Your task to perform on an android device: When is my next appointment? Image 0: 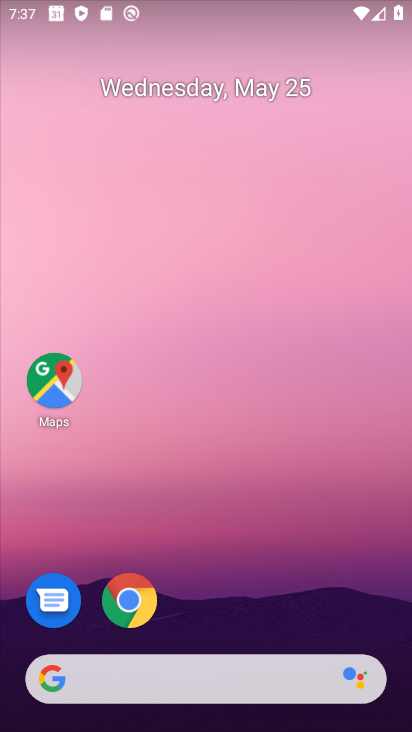
Step 0: drag from (307, 599) to (319, 133)
Your task to perform on an android device: When is my next appointment? Image 1: 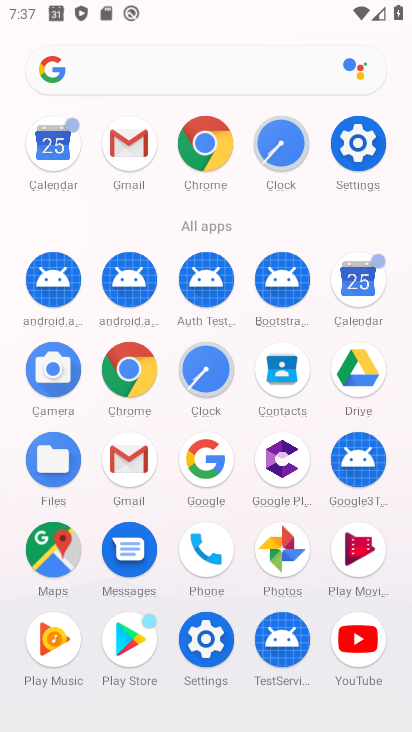
Step 1: click (361, 284)
Your task to perform on an android device: When is my next appointment? Image 2: 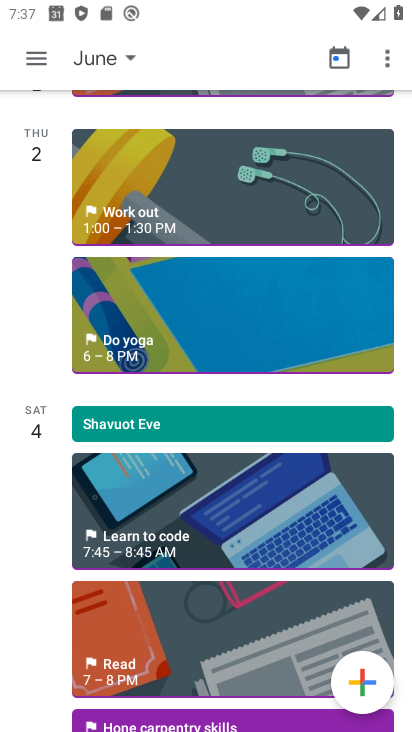
Step 2: drag from (161, 633) to (182, 275)
Your task to perform on an android device: When is my next appointment? Image 3: 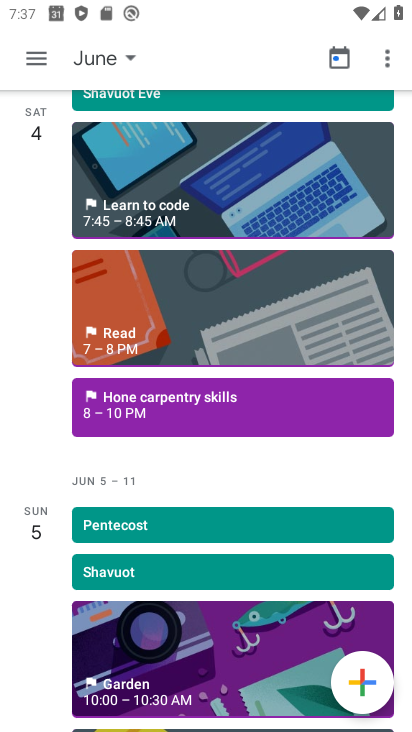
Step 3: drag from (213, 613) to (205, 245)
Your task to perform on an android device: When is my next appointment? Image 4: 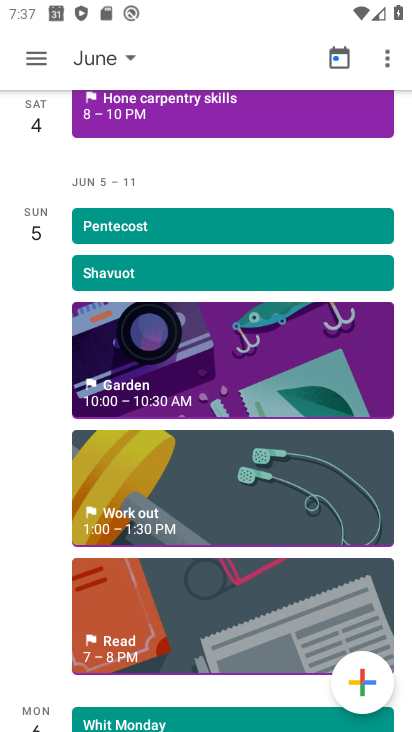
Step 4: drag from (210, 534) to (281, 196)
Your task to perform on an android device: When is my next appointment? Image 5: 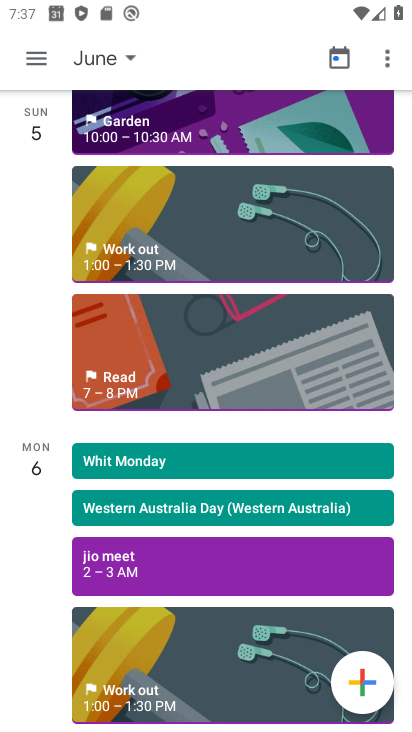
Step 5: drag from (222, 655) to (262, 289)
Your task to perform on an android device: When is my next appointment? Image 6: 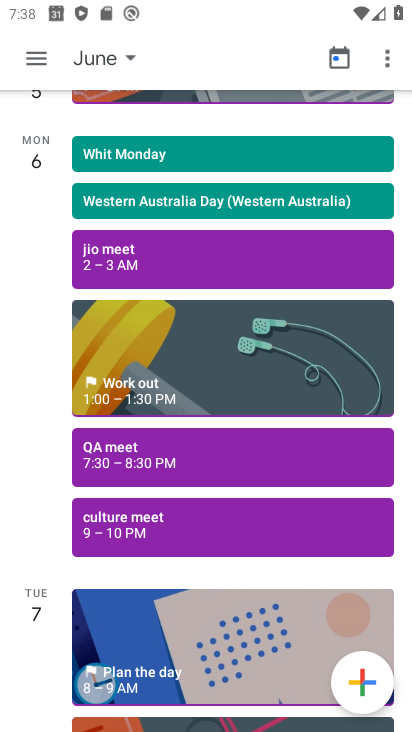
Step 6: drag from (223, 671) to (273, 397)
Your task to perform on an android device: When is my next appointment? Image 7: 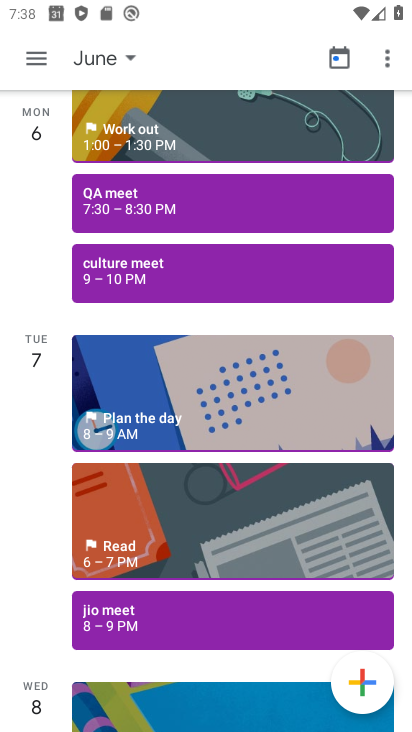
Step 7: click (123, 207)
Your task to perform on an android device: When is my next appointment? Image 8: 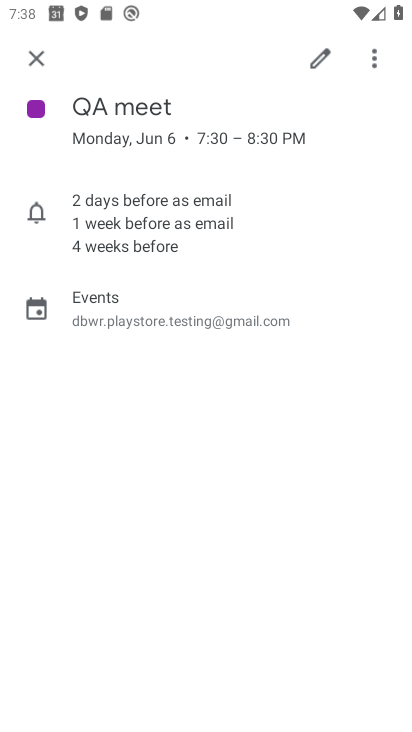
Step 8: task complete